Your task to perform on an android device: Go to internet settings Image 0: 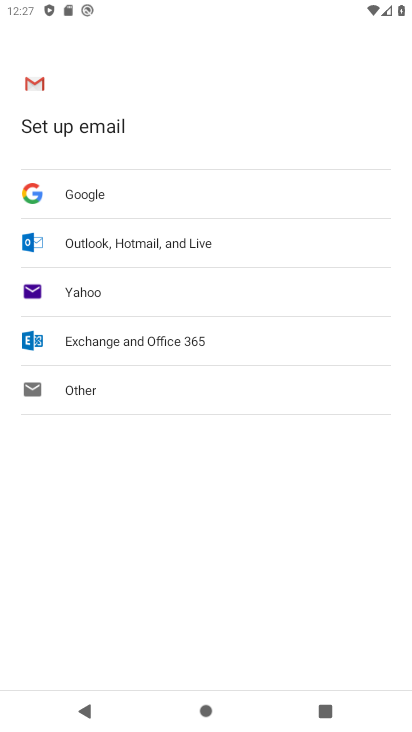
Step 0: press home button
Your task to perform on an android device: Go to internet settings Image 1: 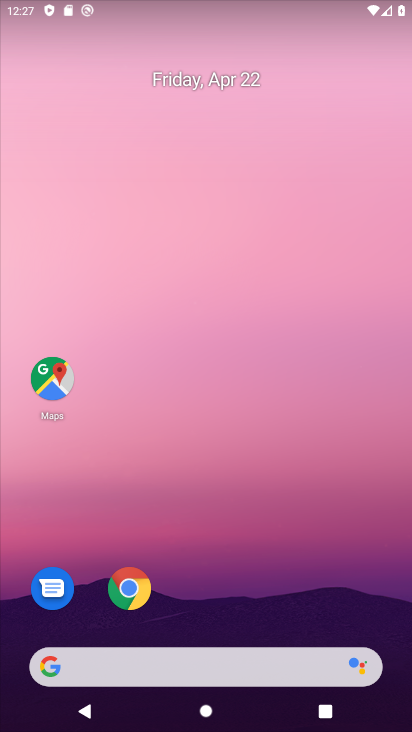
Step 1: drag from (239, 693) to (137, 1)
Your task to perform on an android device: Go to internet settings Image 2: 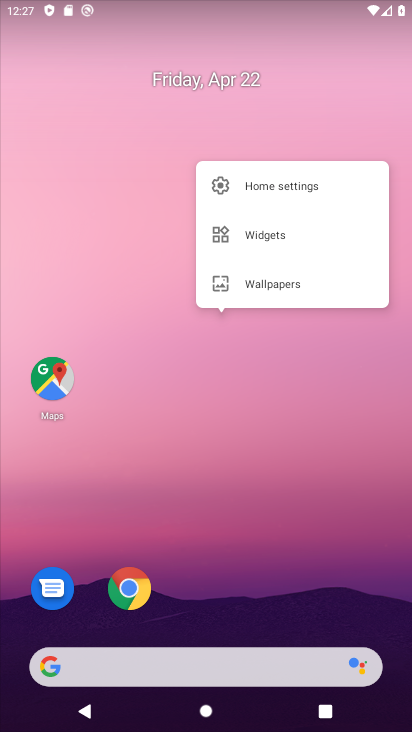
Step 2: drag from (252, 689) to (196, 328)
Your task to perform on an android device: Go to internet settings Image 3: 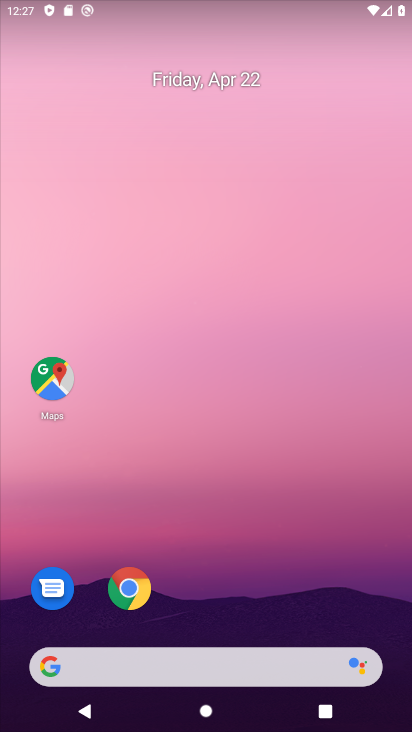
Step 3: drag from (229, 679) to (195, 356)
Your task to perform on an android device: Go to internet settings Image 4: 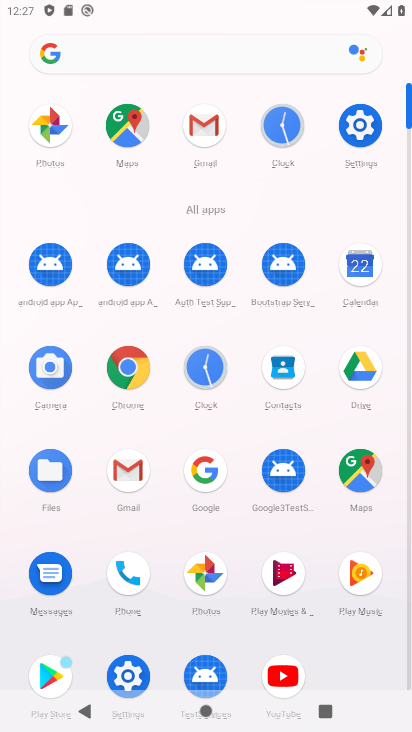
Step 4: click (127, 669)
Your task to perform on an android device: Go to internet settings Image 5: 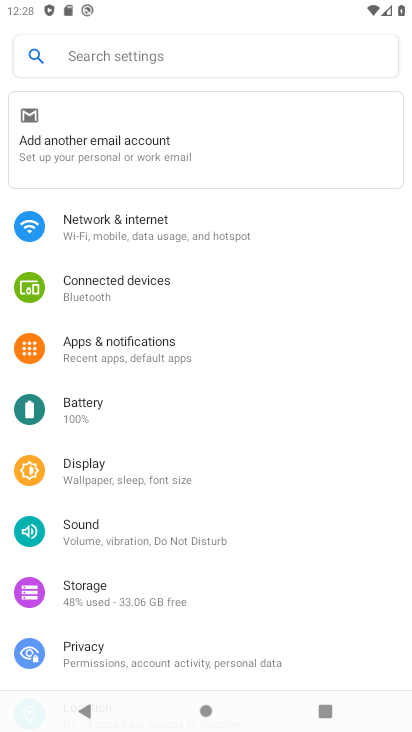
Step 5: click (127, 228)
Your task to perform on an android device: Go to internet settings Image 6: 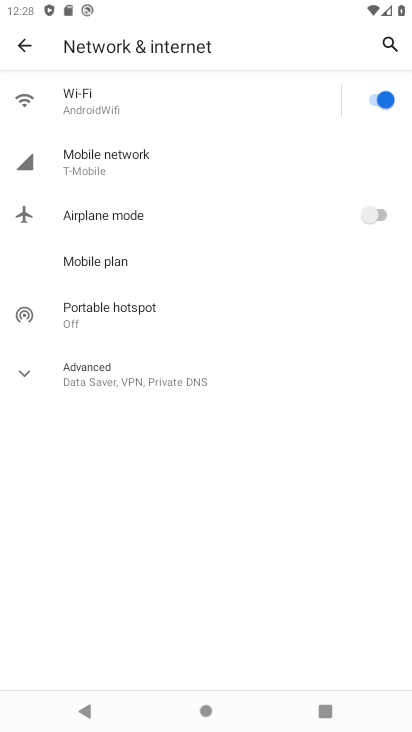
Step 6: task complete